Your task to perform on an android device: Go to Google Image 0: 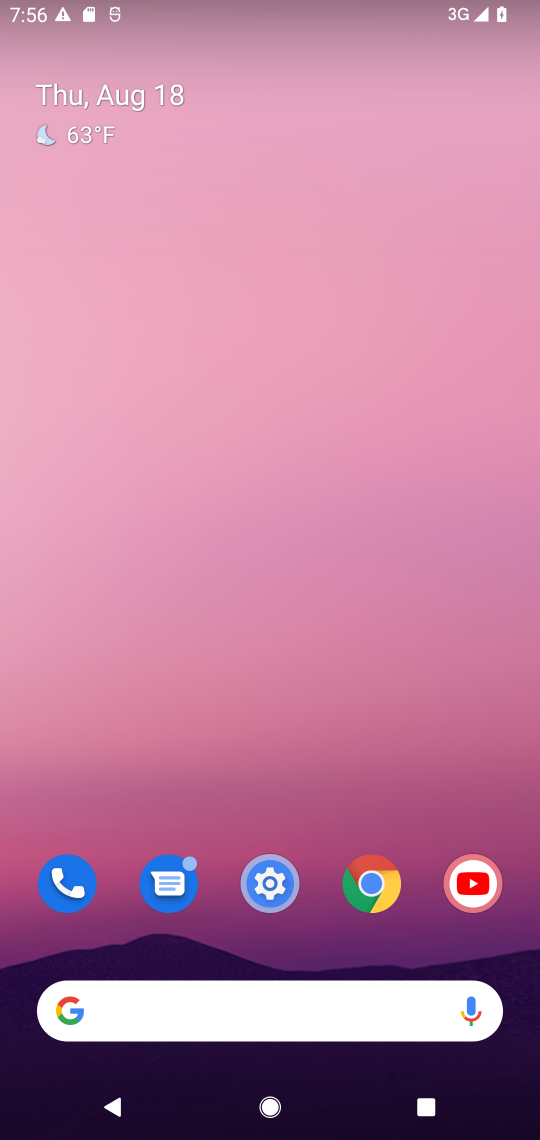
Step 0: click (115, 999)
Your task to perform on an android device: Go to Google Image 1: 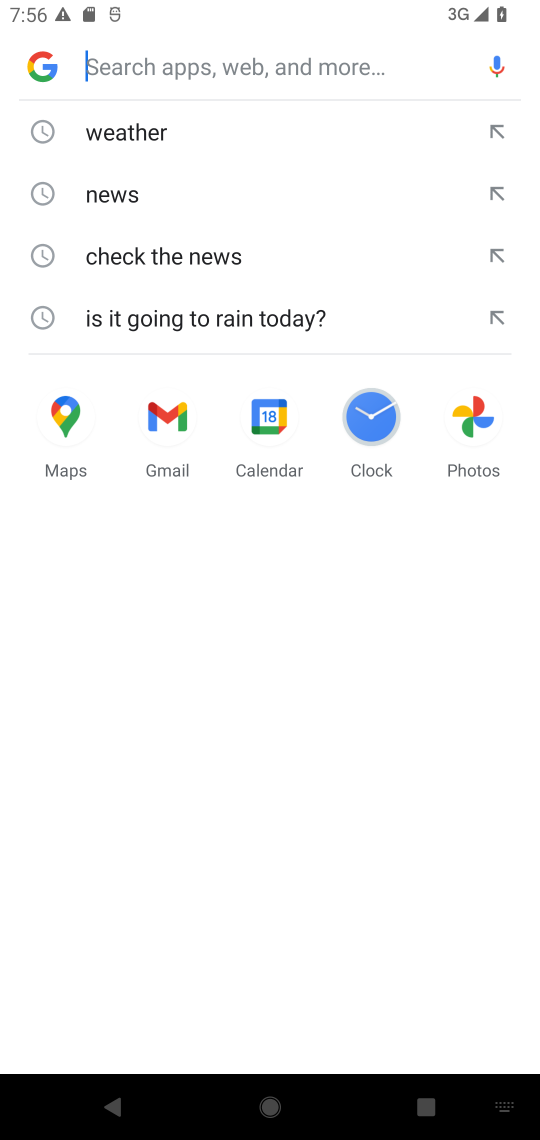
Step 1: task complete